Your task to perform on an android device: see tabs open on other devices in the chrome app Image 0: 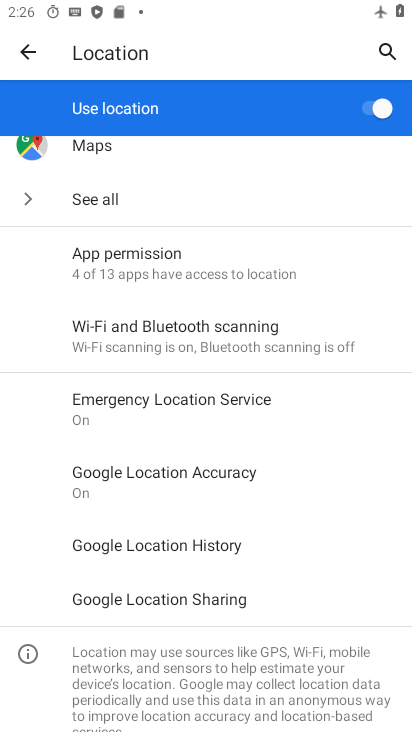
Step 0: press home button
Your task to perform on an android device: see tabs open on other devices in the chrome app Image 1: 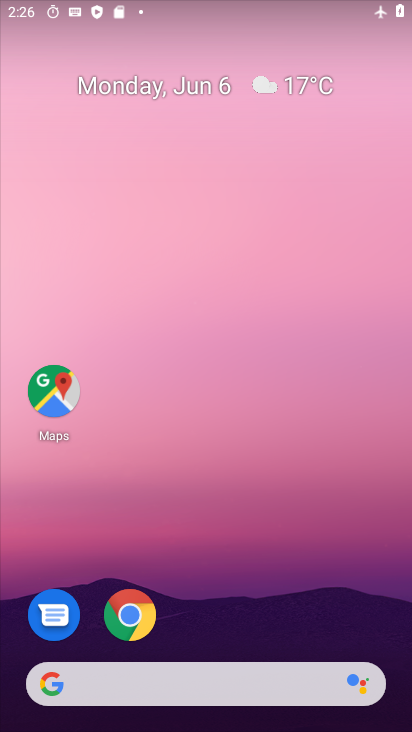
Step 1: click (139, 607)
Your task to perform on an android device: see tabs open on other devices in the chrome app Image 2: 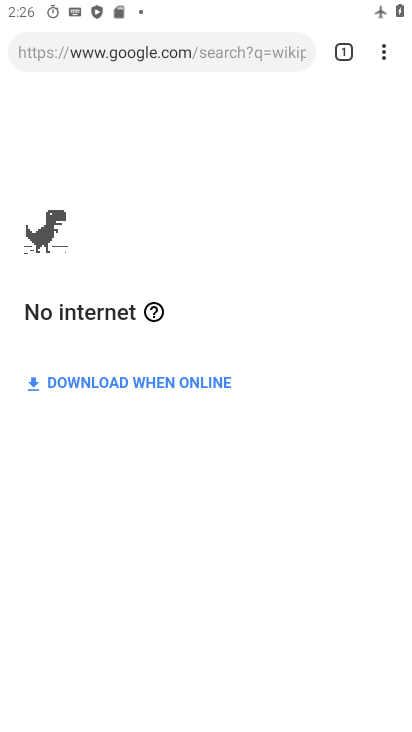
Step 2: click (384, 54)
Your task to perform on an android device: see tabs open on other devices in the chrome app Image 3: 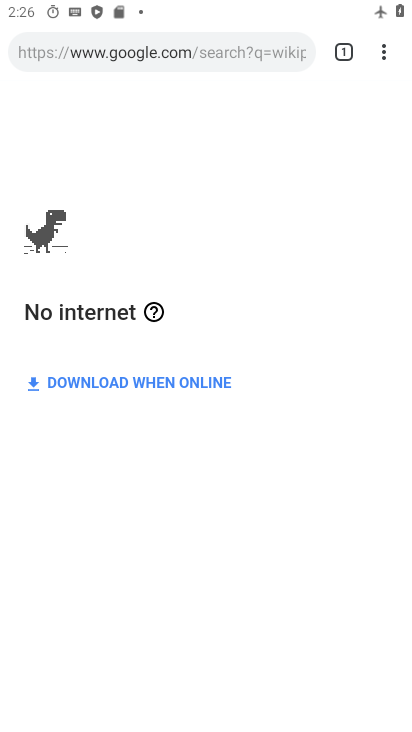
Step 3: click (385, 52)
Your task to perform on an android device: see tabs open on other devices in the chrome app Image 4: 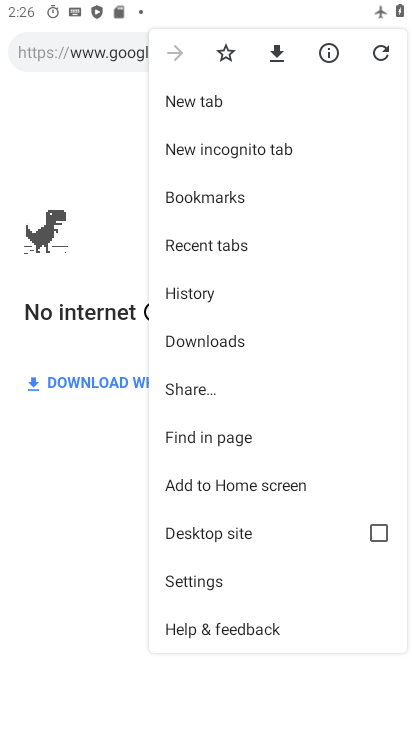
Step 4: click (233, 255)
Your task to perform on an android device: see tabs open on other devices in the chrome app Image 5: 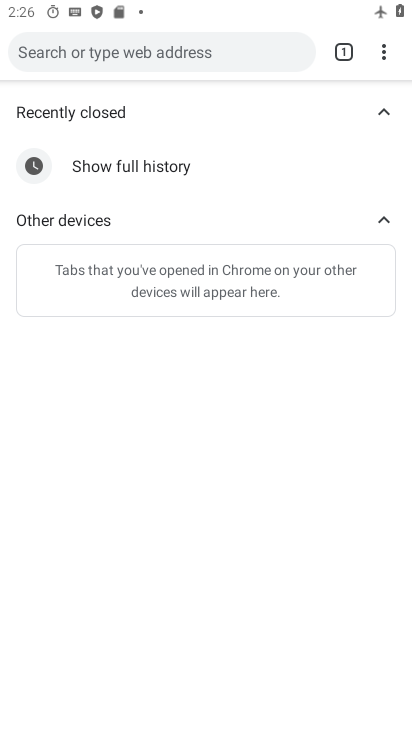
Step 5: task complete